Your task to perform on an android device: change the clock display to digital Image 0: 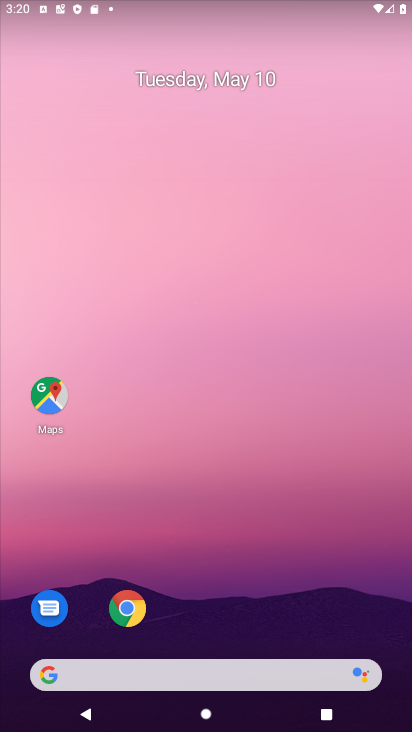
Step 0: drag from (380, 632) to (312, 100)
Your task to perform on an android device: change the clock display to digital Image 1: 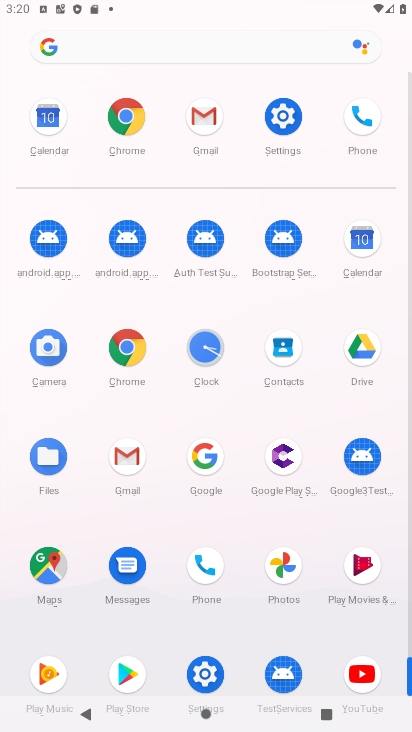
Step 1: click (410, 643)
Your task to perform on an android device: change the clock display to digital Image 2: 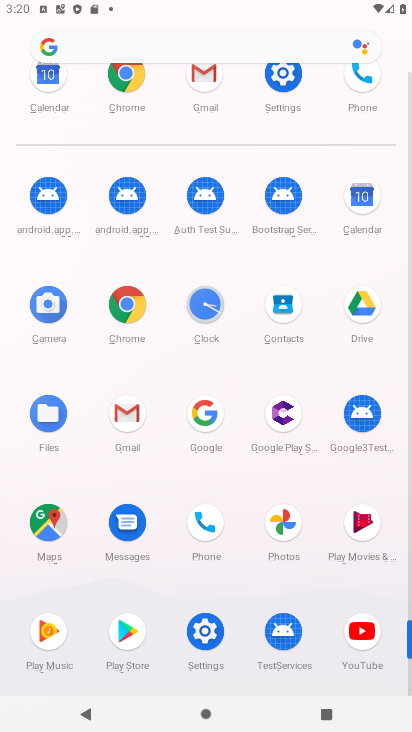
Step 2: click (201, 303)
Your task to perform on an android device: change the clock display to digital Image 3: 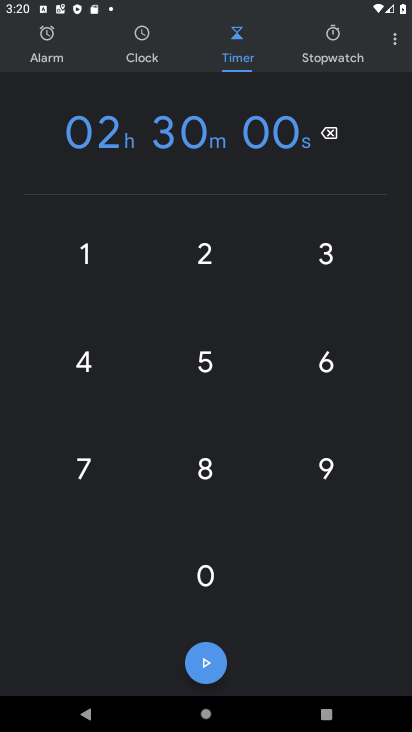
Step 3: click (394, 39)
Your task to perform on an android device: change the clock display to digital Image 4: 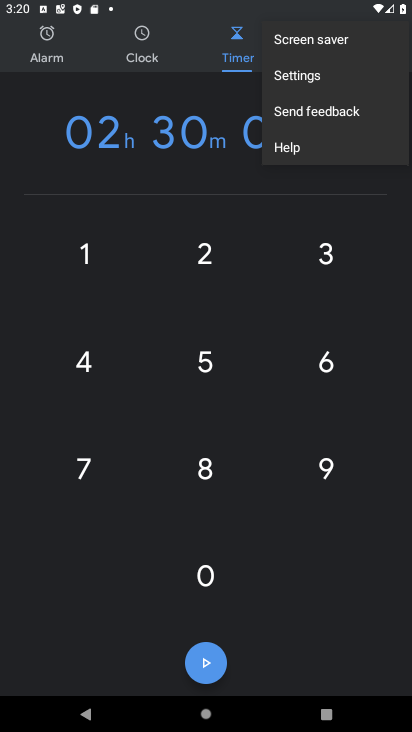
Step 4: click (297, 69)
Your task to perform on an android device: change the clock display to digital Image 5: 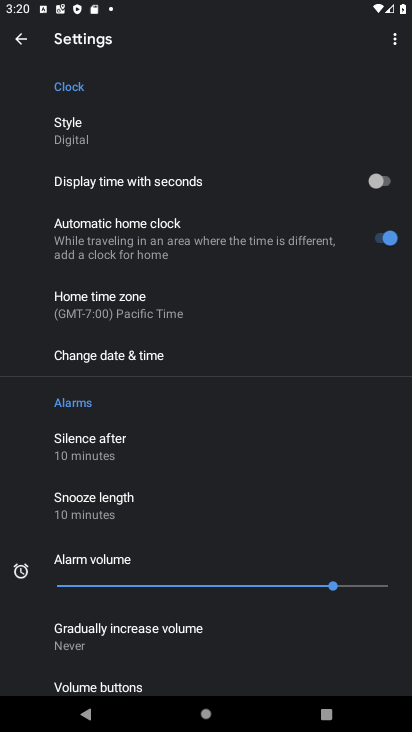
Step 5: task complete